Your task to perform on an android device: add a label to a message in the gmail app Image 0: 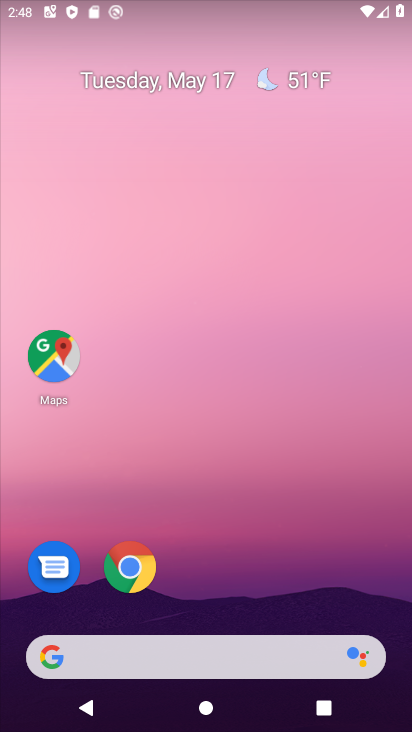
Step 0: drag from (198, 639) to (207, 1)
Your task to perform on an android device: add a label to a message in the gmail app Image 1: 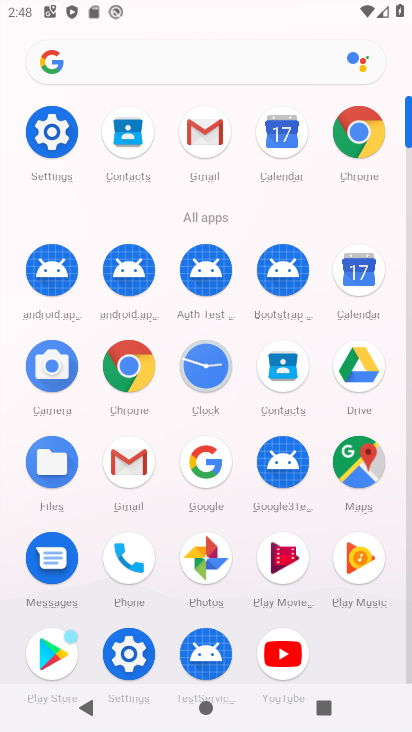
Step 1: click (132, 466)
Your task to perform on an android device: add a label to a message in the gmail app Image 2: 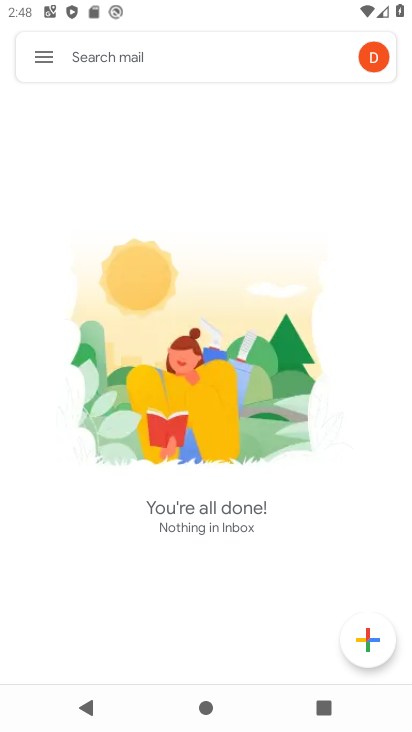
Step 2: click (58, 66)
Your task to perform on an android device: add a label to a message in the gmail app Image 3: 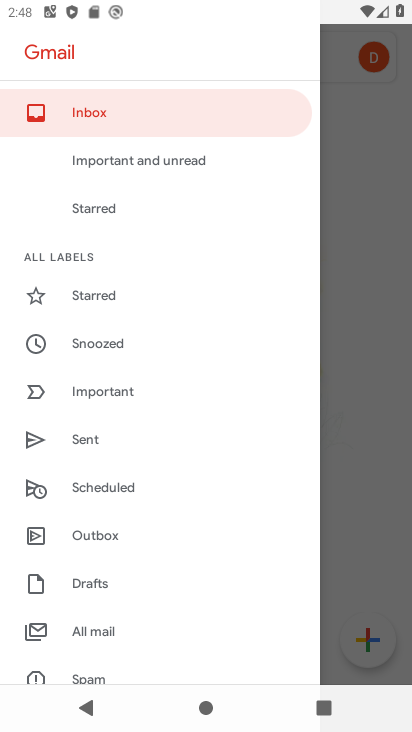
Step 3: click (83, 630)
Your task to perform on an android device: add a label to a message in the gmail app Image 4: 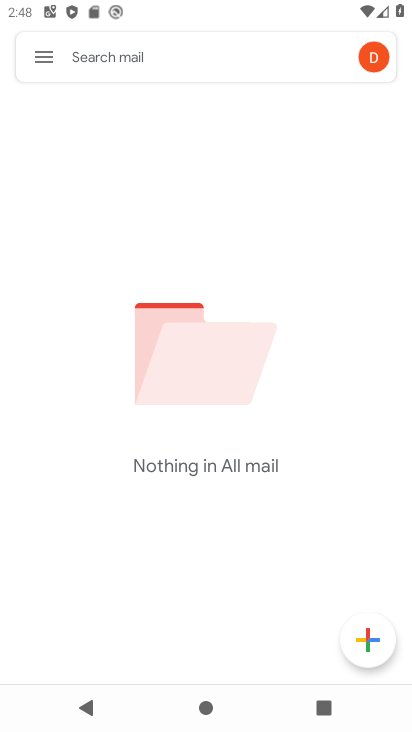
Step 4: task complete